Your task to perform on an android device: toggle show notifications on the lock screen Image 0: 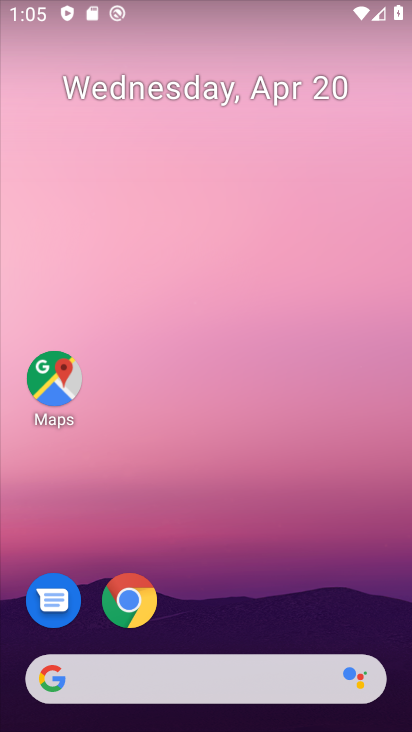
Step 0: drag from (353, 565) to (265, 149)
Your task to perform on an android device: toggle show notifications on the lock screen Image 1: 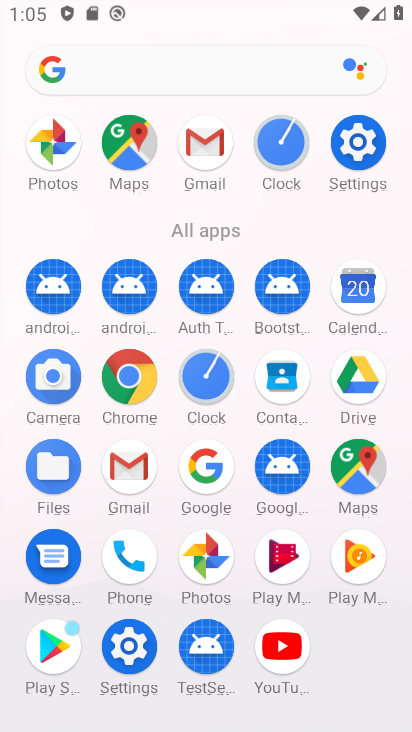
Step 1: click (127, 645)
Your task to perform on an android device: toggle show notifications on the lock screen Image 2: 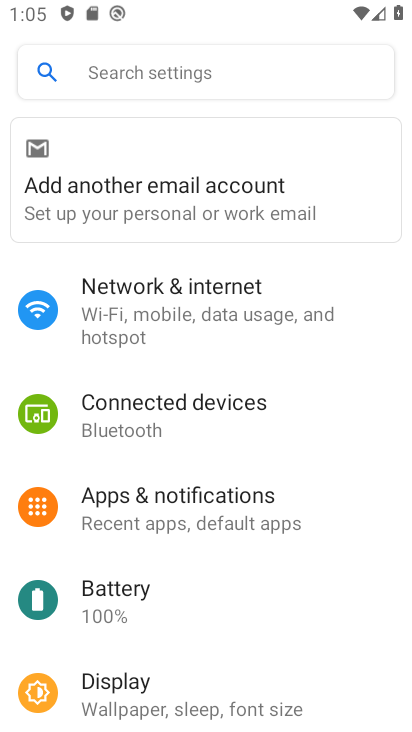
Step 2: click (164, 500)
Your task to perform on an android device: toggle show notifications on the lock screen Image 3: 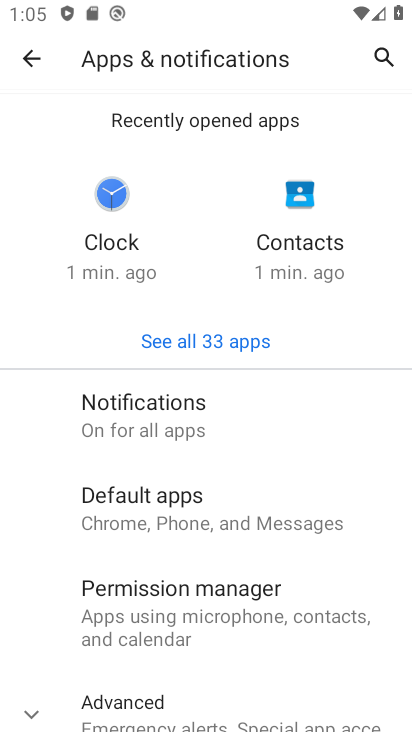
Step 3: click (123, 411)
Your task to perform on an android device: toggle show notifications on the lock screen Image 4: 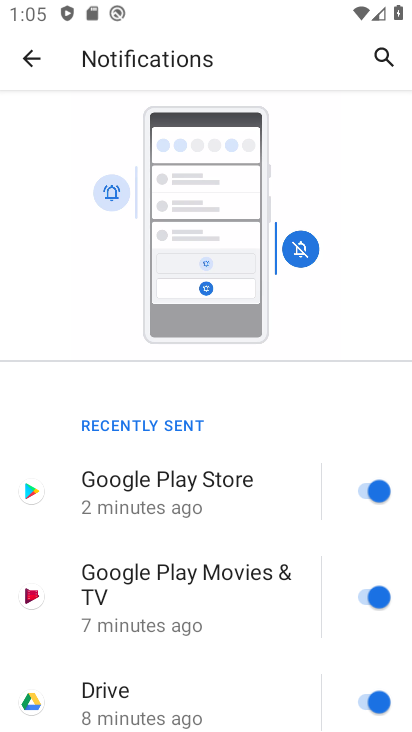
Step 4: drag from (317, 605) to (324, 246)
Your task to perform on an android device: toggle show notifications on the lock screen Image 5: 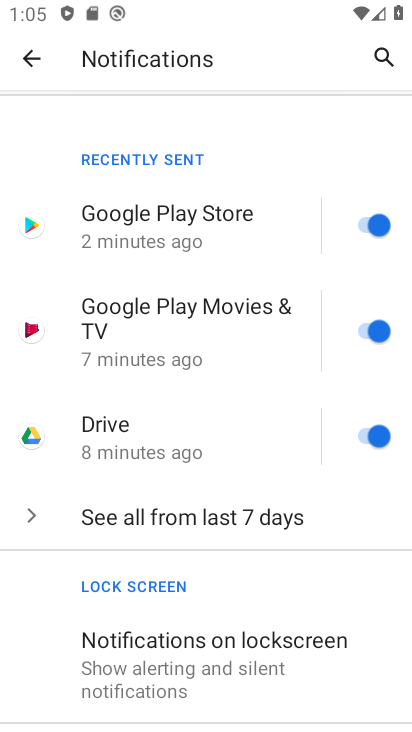
Step 5: drag from (324, 584) to (332, 261)
Your task to perform on an android device: toggle show notifications on the lock screen Image 6: 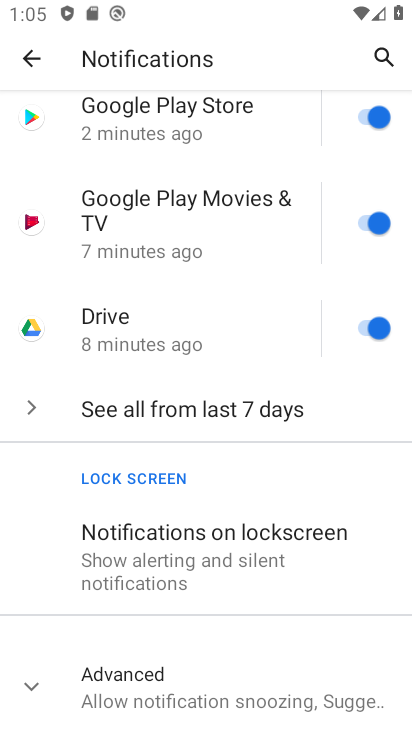
Step 6: click (157, 549)
Your task to perform on an android device: toggle show notifications on the lock screen Image 7: 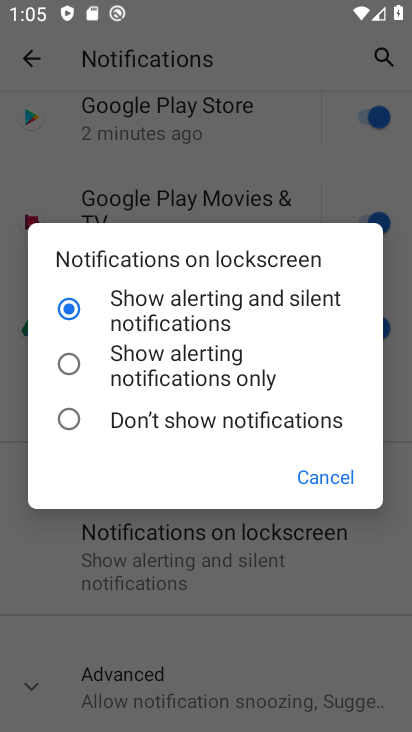
Step 7: click (64, 356)
Your task to perform on an android device: toggle show notifications on the lock screen Image 8: 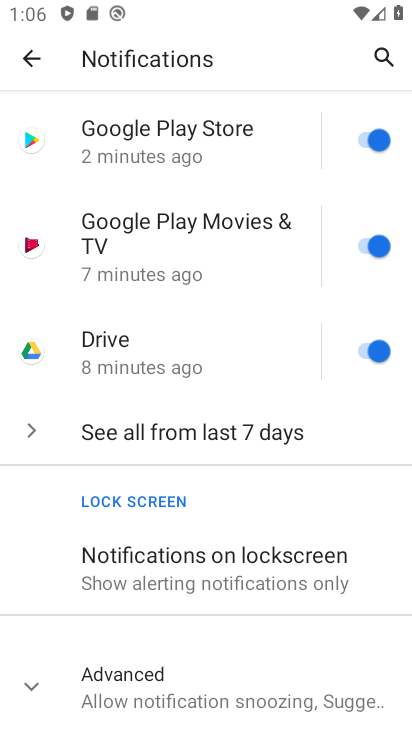
Step 8: task complete